Your task to perform on an android device: Go to wifi settings Image 0: 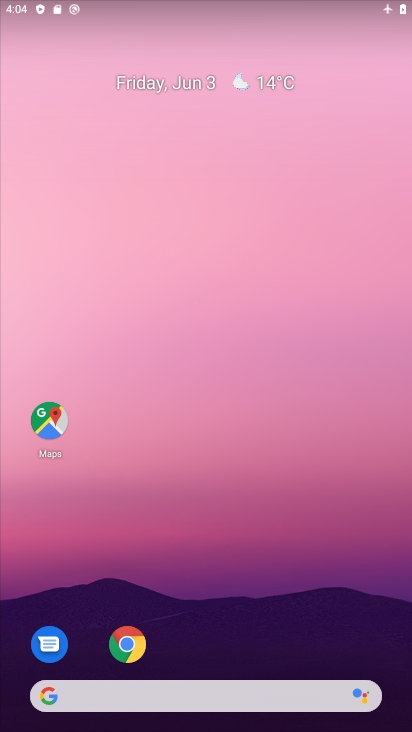
Step 0: drag from (182, 12) to (7, 627)
Your task to perform on an android device: Go to wifi settings Image 1: 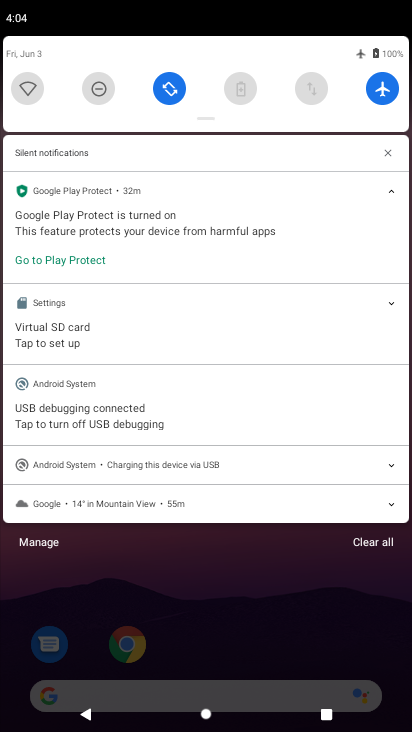
Step 1: click (35, 88)
Your task to perform on an android device: Go to wifi settings Image 2: 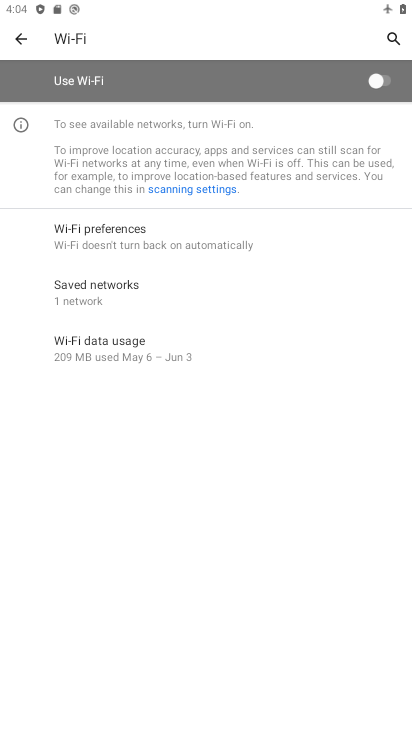
Step 2: task complete